Your task to perform on an android device: turn off smart reply in the gmail app Image 0: 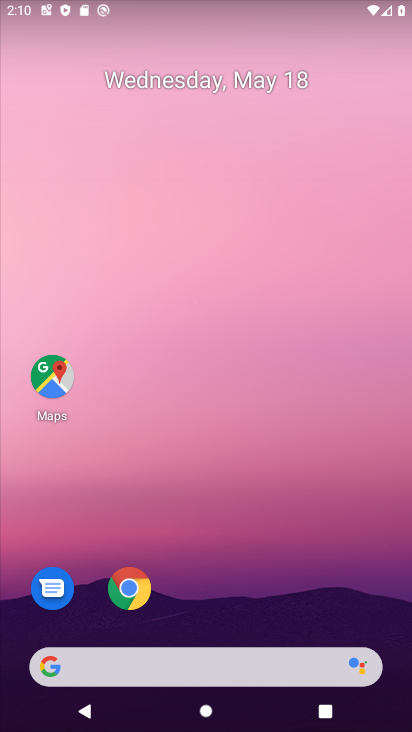
Step 0: drag from (363, 605) to (335, 195)
Your task to perform on an android device: turn off smart reply in the gmail app Image 1: 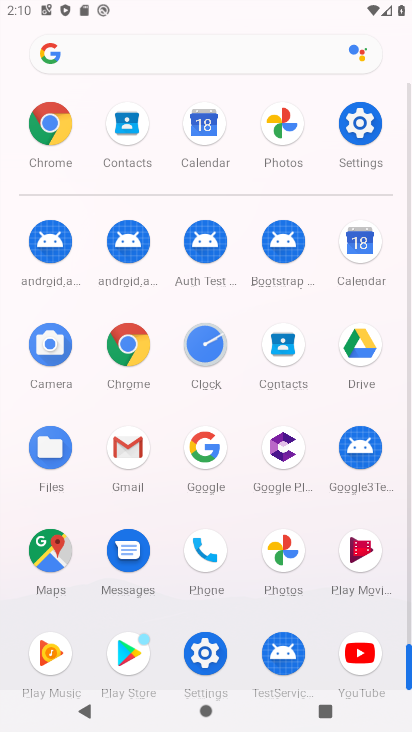
Step 1: click (122, 448)
Your task to perform on an android device: turn off smart reply in the gmail app Image 2: 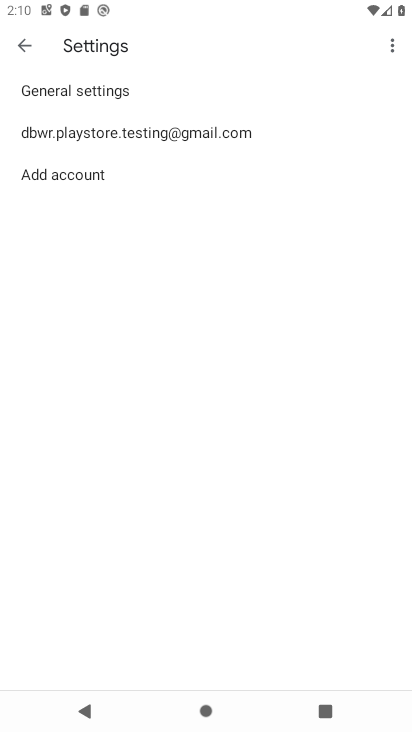
Step 2: click (25, 43)
Your task to perform on an android device: turn off smart reply in the gmail app Image 3: 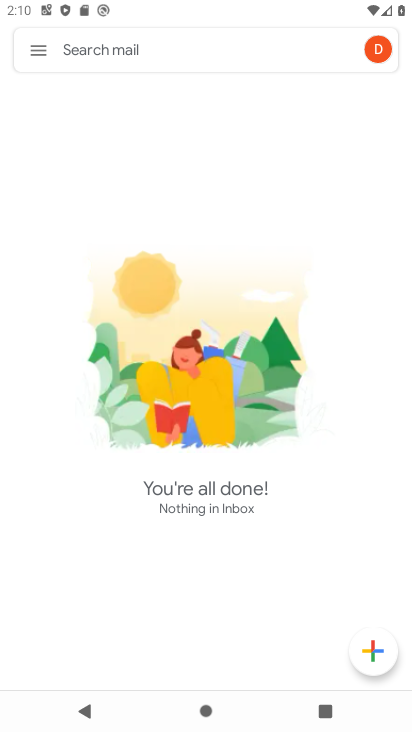
Step 3: click (41, 53)
Your task to perform on an android device: turn off smart reply in the gmail app Image 4: 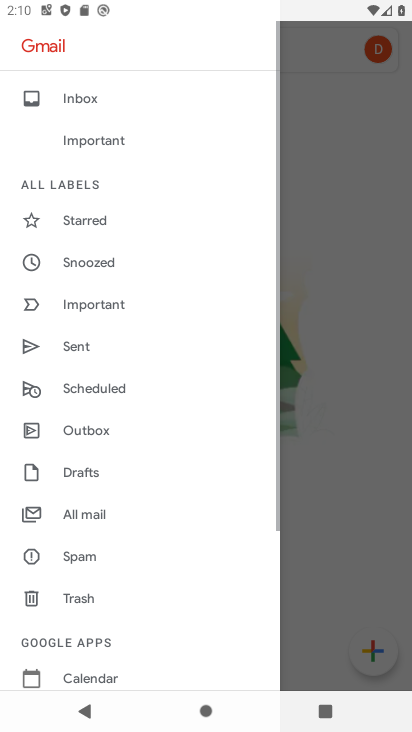
Step 4: drag from (195, 567) to (197, 350)
Your task to perform on an android device: turn off smart reply in the gmail app Image 5: 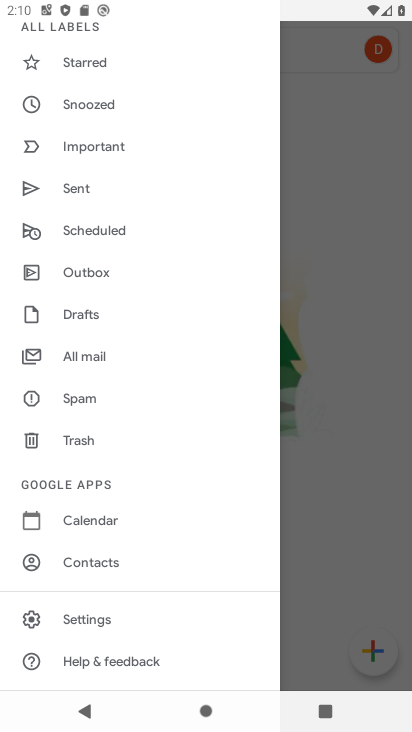
Step 5: drag from (178, 609) to (175, 363)
Your task to perform on an android device: turn off smart reply in the gmail app Image 6: 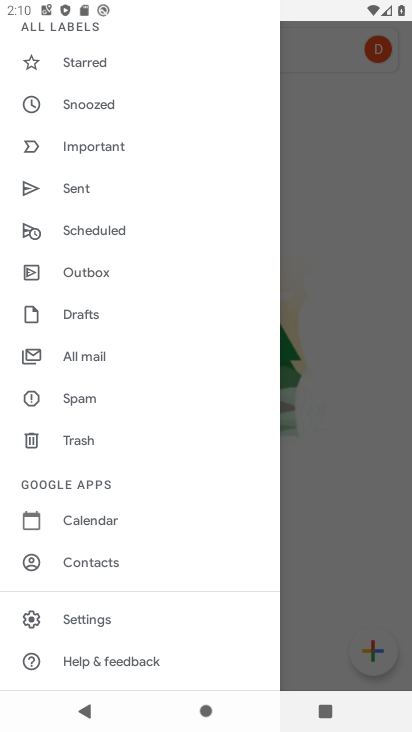
Step 6: click (125, 628)
Your task to perform on an android device: turn off smart reply in the gmail app Image 7: 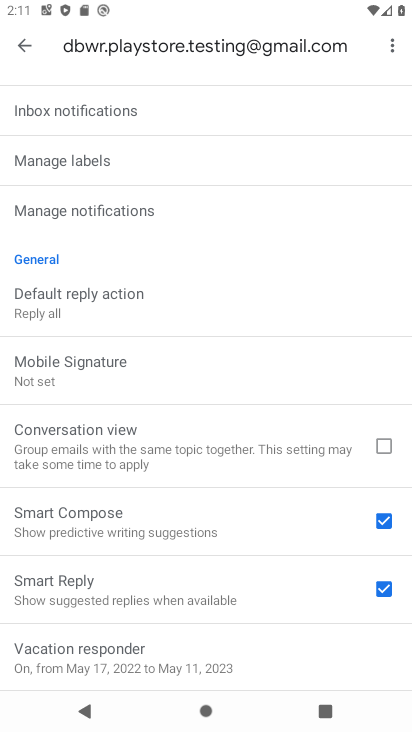
Step 7: drag from (233, 586) to (232, 436)
Your task to perform on an android device: turn off smart reply in the gmail app Image 8: 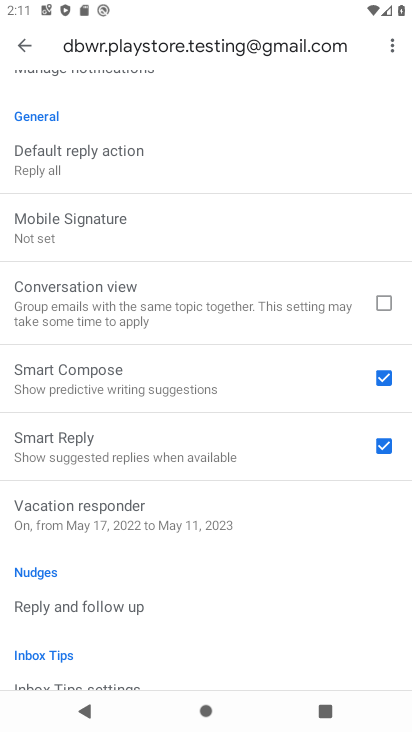
Step 8: drag from (240, 619) to (236, 472)
Your task to perform on an android device: turn off smart reply in the gmail app Image 9: 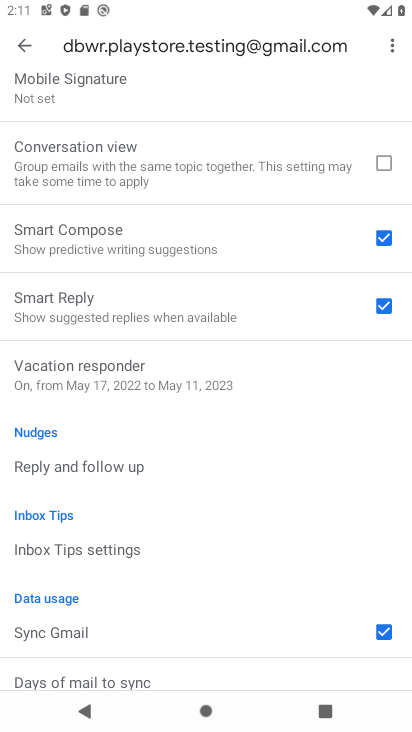
Step 9: drag from (220, 583) to (216, 354)
Your task to perform on an android device: turn off smart reply in the gmail app Image 10: 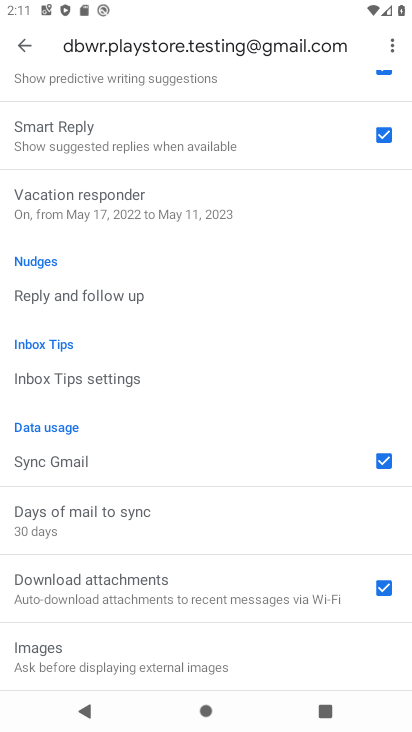
Step 10: click (371, 136)
Your task to perform on an android device: turn off smart reply in the gmail app Image 11: 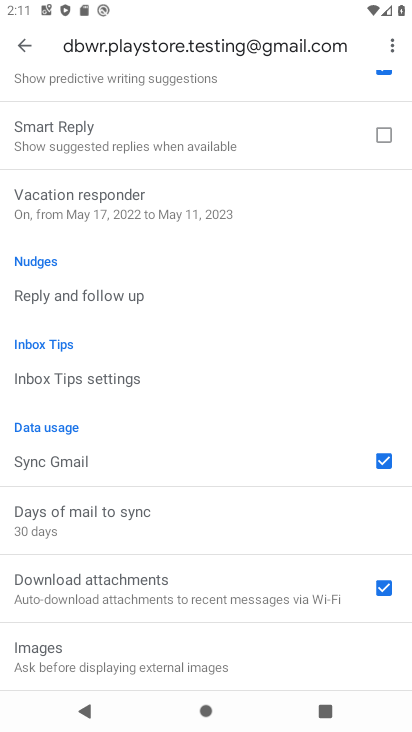
Step 11: task complete